Your task to perform on an android device: Open the map Image 0: 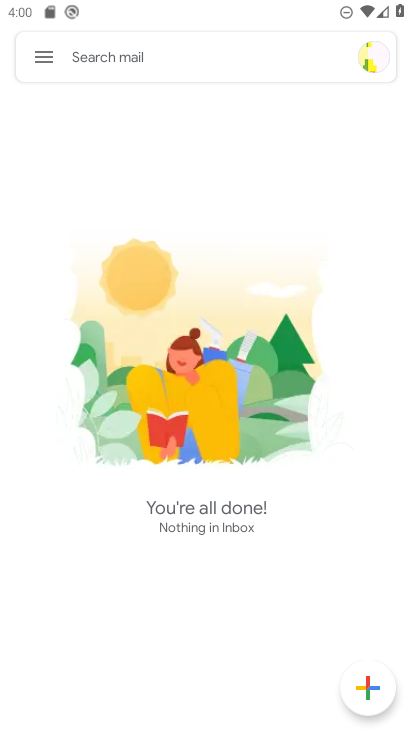
Step 0: press home button
Your task to perform on an android device: Open the map Image 1: 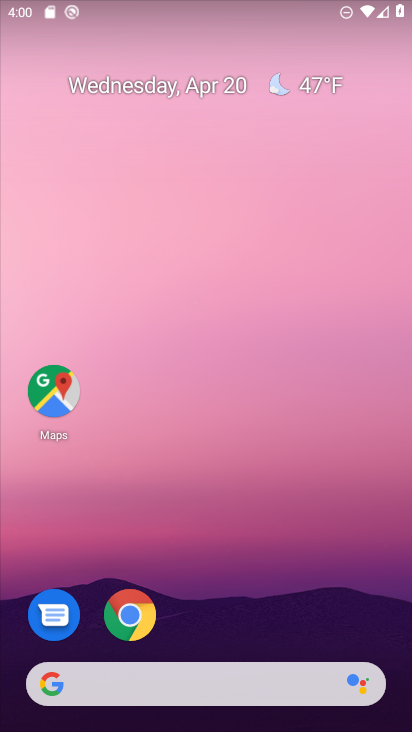
Step 1: click (59, 394)
Your task to perform on an android device: Open the map Image 2: 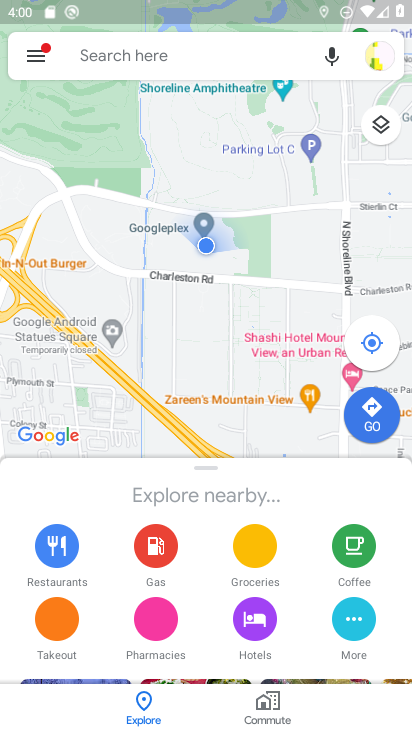
Step 2: task complete